Your task to perform on an android device: refresh tabs in the chrome app Image 0: 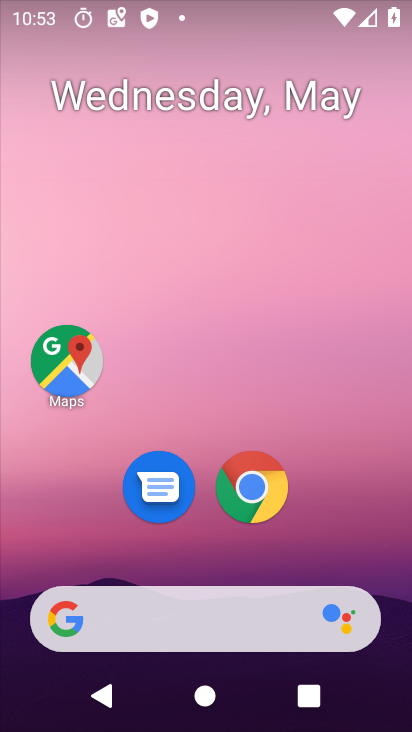
Step 0: drag from (274, 466) to (255, 47)
Your task to perform on an android device: refresh tabs in the chrome app Image 1: 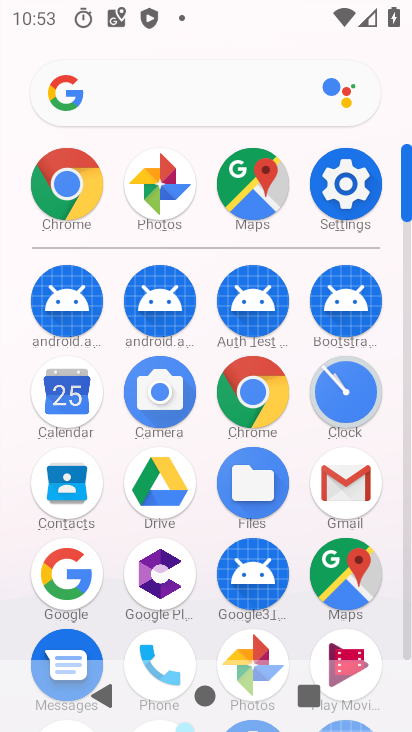
Step 1: click (231, 393)
Your task to perform on an android device: refresh tabs in the chrome app Image 2: 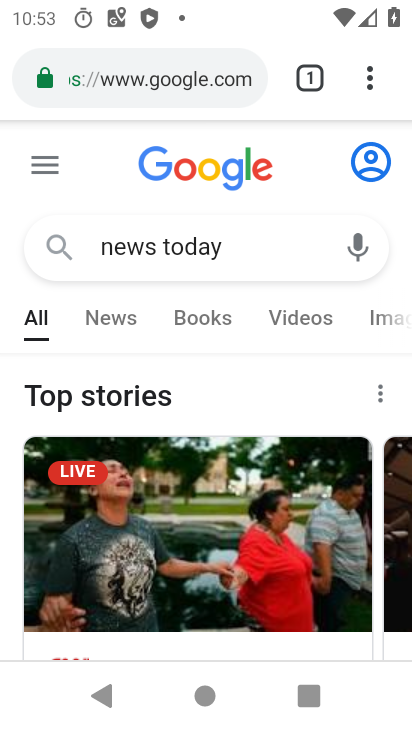
Step 2: click (374, 70)
Your task to perform on an android device: refresh tabs in the chrome app Image 3: 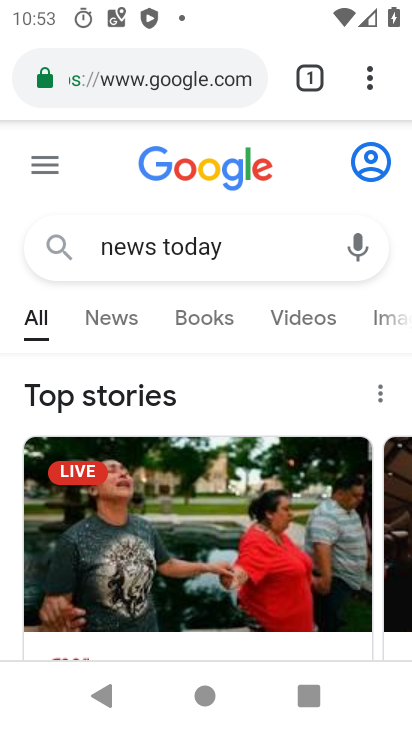
Step 3: task complete